Your task to perform on an android device: Find coffee shops on Maps Image 0: 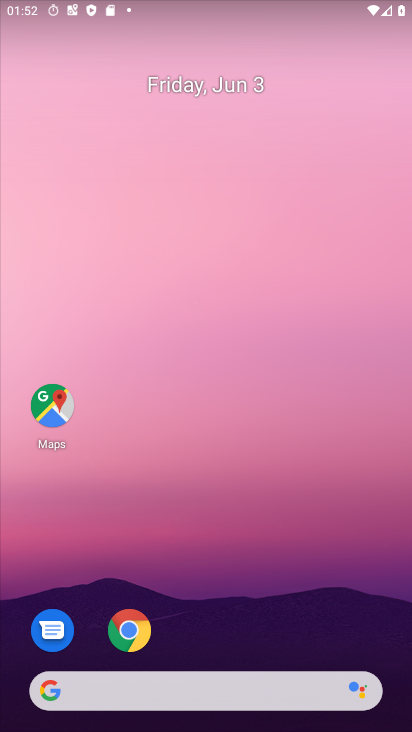
Step 0: drag from (226, 636) to (206, 173)
Your task to perform on an android device: Find coffee shops on Maps Image 1: 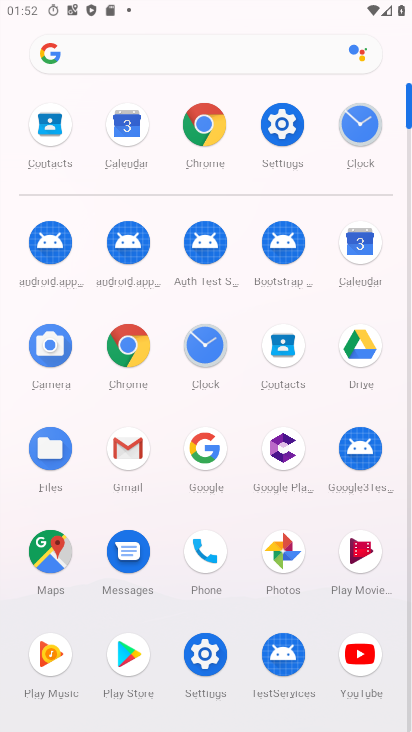
Step 1: click (48, 553)
Your task to perform on an android device: Find coffee shops on Maps Image 2: 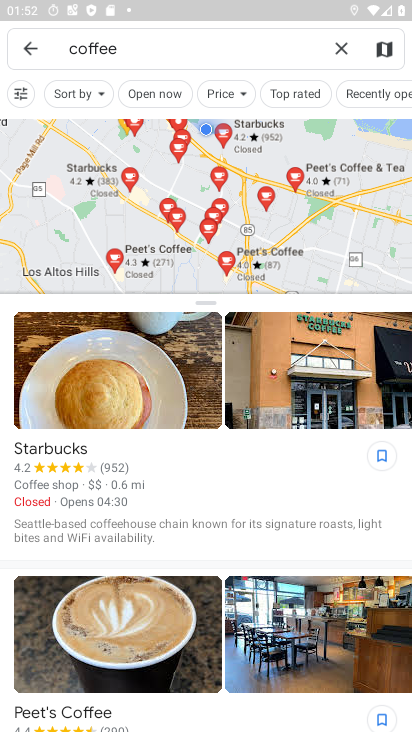
Step 2: task complete